Your task to perform on an android device: Turn on the flashlight Image 0: 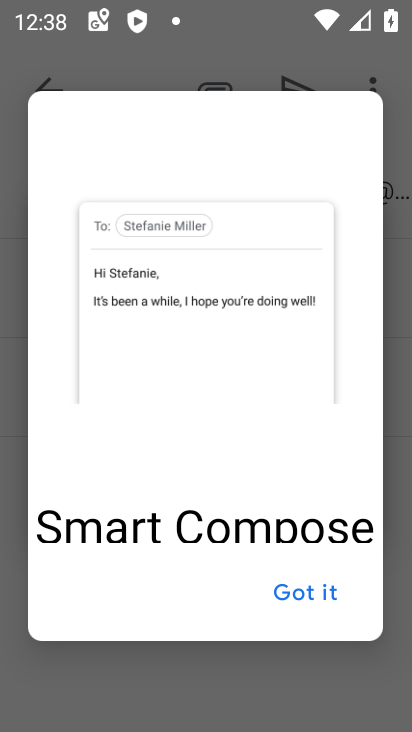
Step 0: drag from (255, 1) to (229, 446)
Your task to perform on an android device: Turn on the flashlight Image 1: 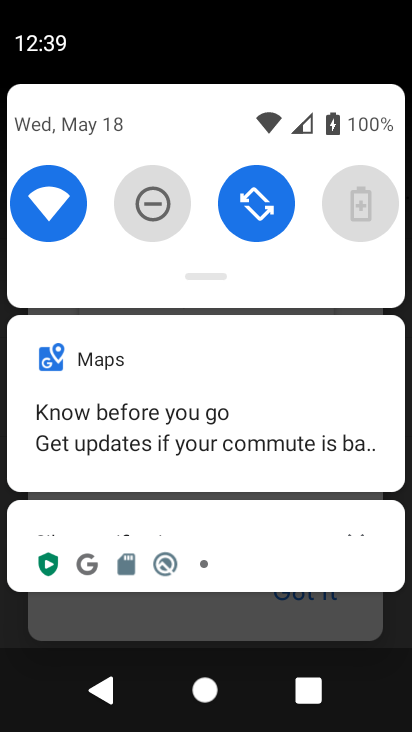
Step 1: task complete